Your task to perform on an android device: turn off airplane mode Image 0: 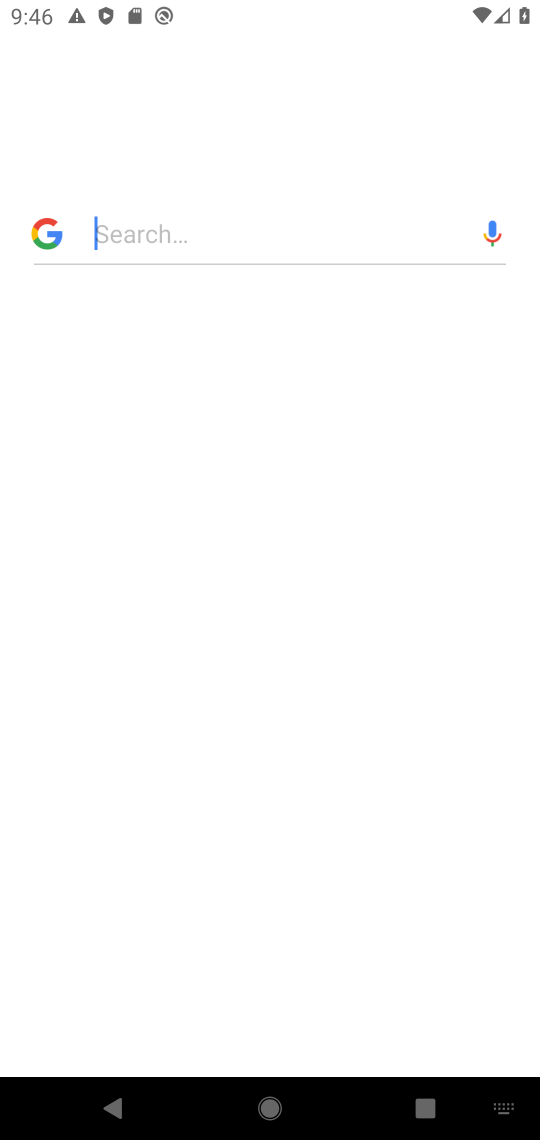
Step 0: press back button
Your task to perform on an android device: turn off airplane mode Image 1: 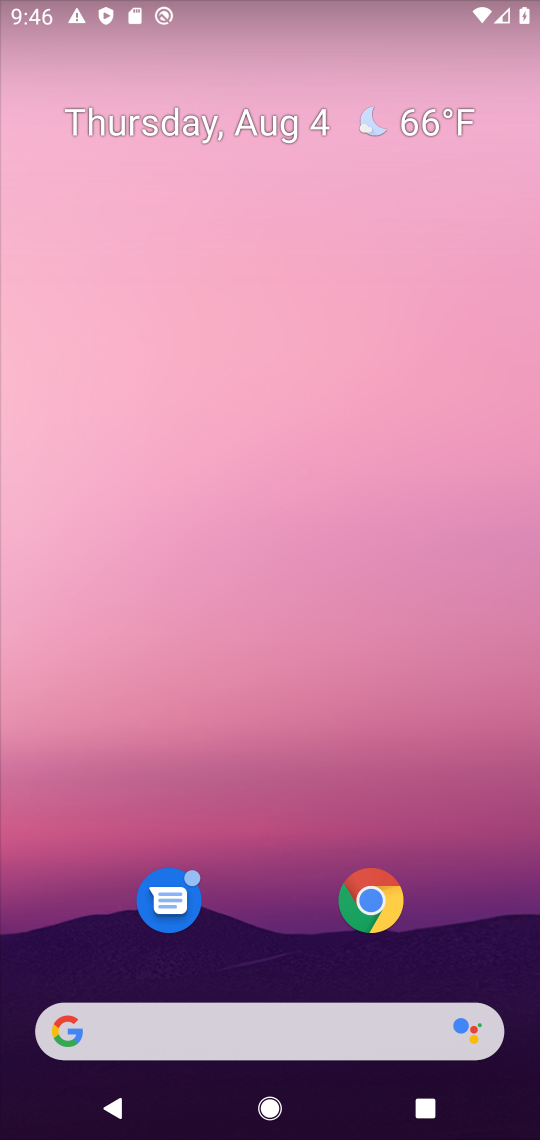
Step 1: drag from (471, 971) to (418, 308)
Your task to perform on an android device: turn off airplane mode Image 2: 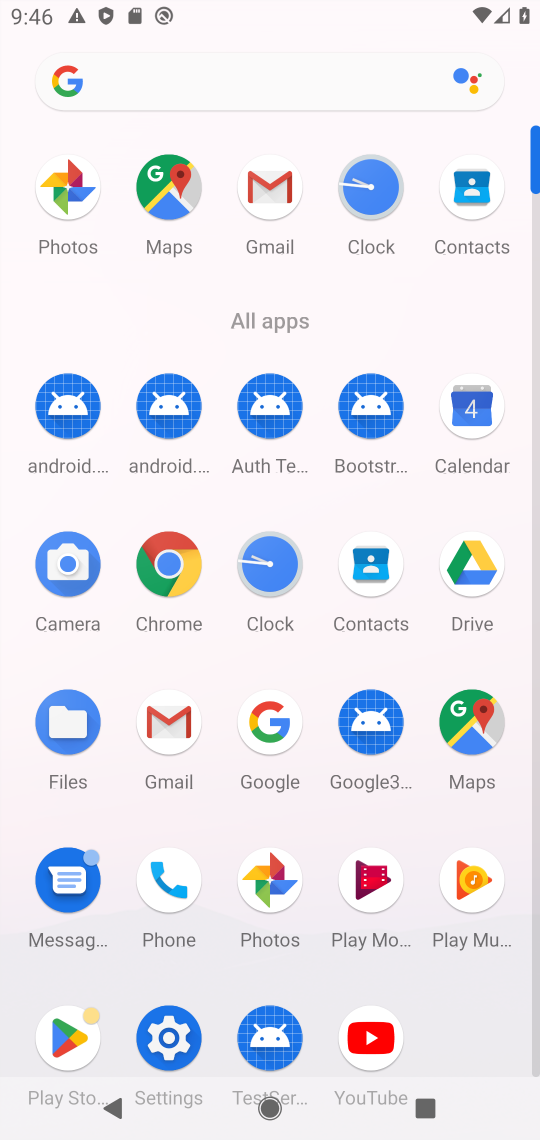
Step 2: click (159, 1020)
Your task to perform on an android device: turn off airplane mode Image 3: 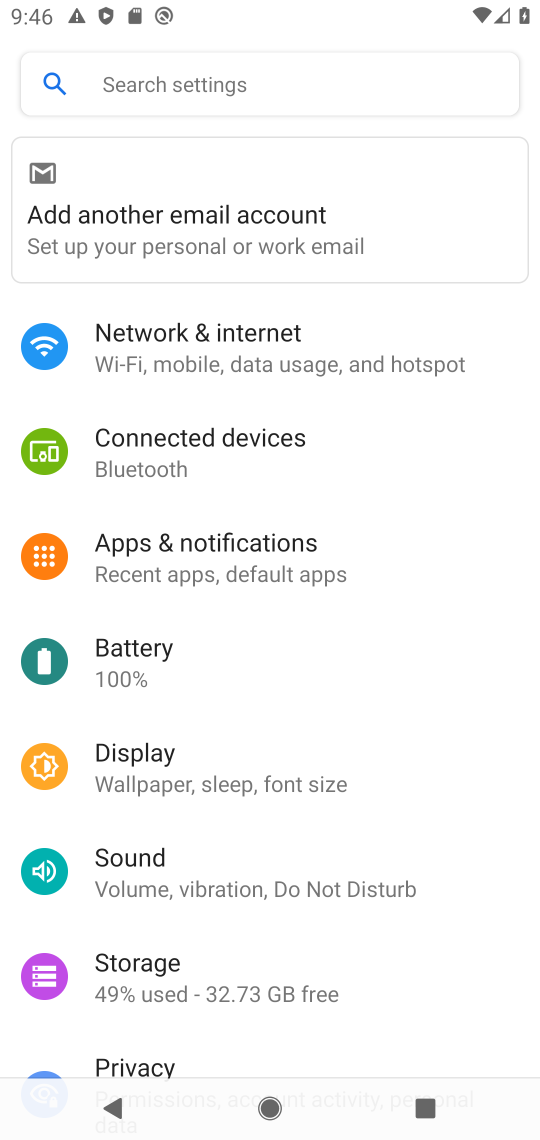
Step 3: click (347, 346)
Your task to perform on an android device: turn off airplane mode Image 4: 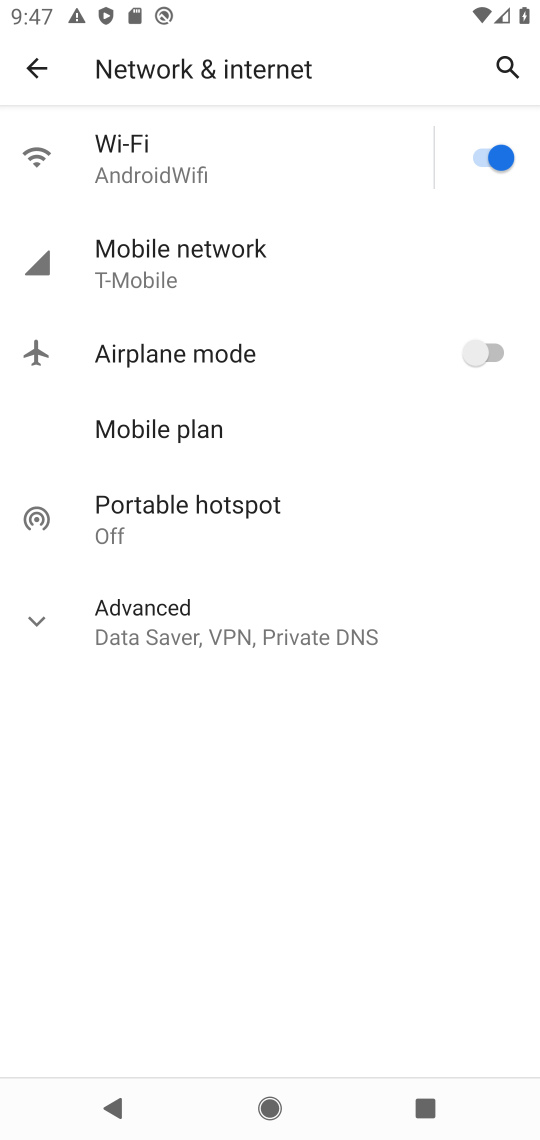
Step 4: task complete